Your task to perform on an android device: clear history in the chrome app Image 0: 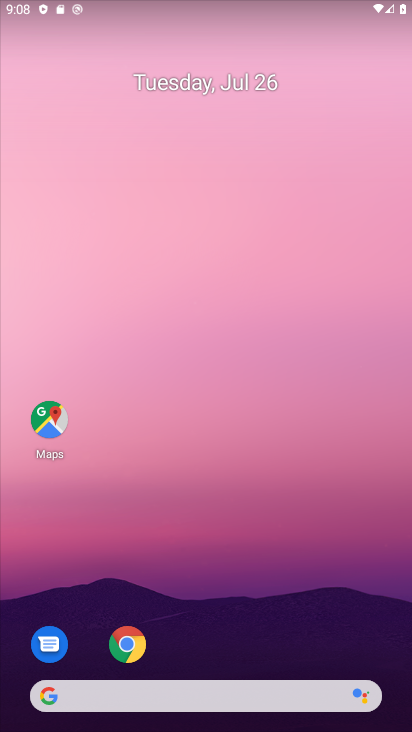
Step 0: click (122, 643)
Your task to perform on an android device: clear history in the chrome app Image 1: 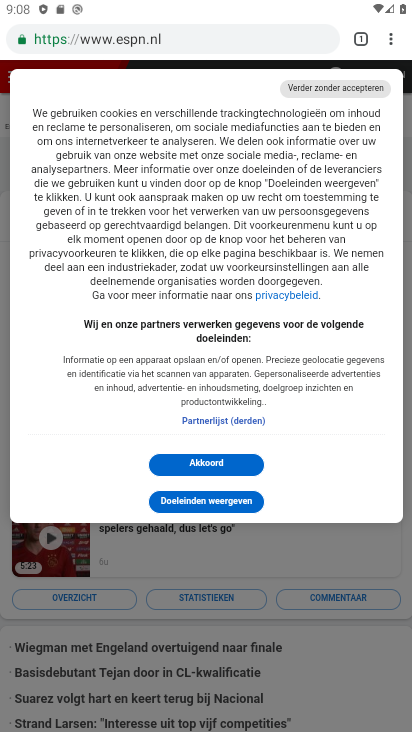
Step 1: click (397, 39)
Your task to perform on an android device: clear history in the chrome app Image 2: 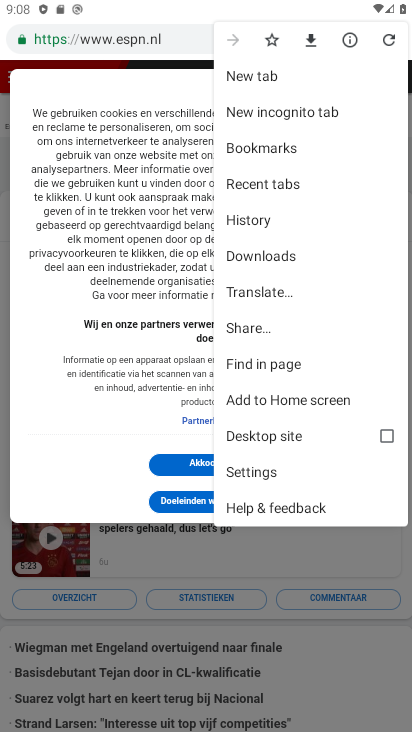
Step 2: click (262, 217)
Your task to perform on an android device: clear history in the chrome app Image 3: 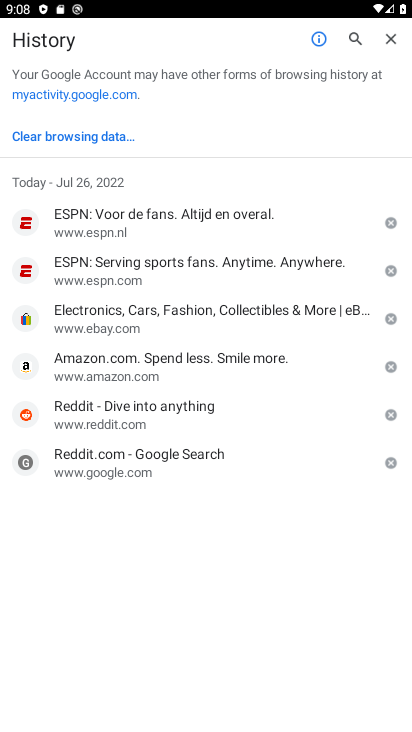
Step 3: click (89, 133)
Your task to perform on an android device: clear history in the chrome app Image 4: 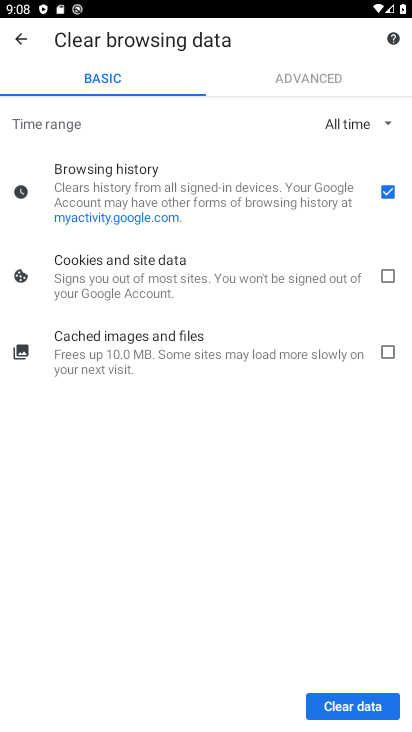
Step 4: click (386, 287)
Your task to perform on an android device: clear history in the chrome app Image 5: 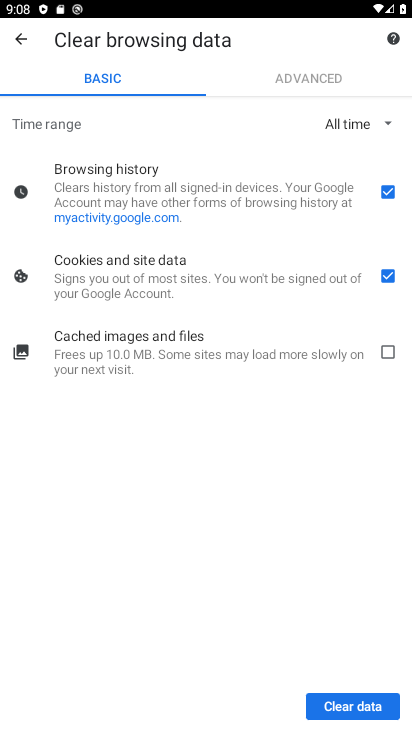
Step 5: click (388, 347)
Your task to perform on an android device: clear history in the chrome app Image 6: 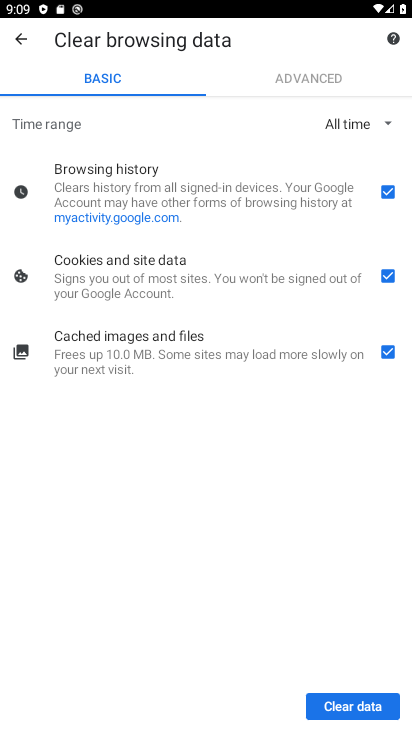
Step 6: click (372, 710)
Your task to perform on an android device: clear history in the chrome app Image 7: 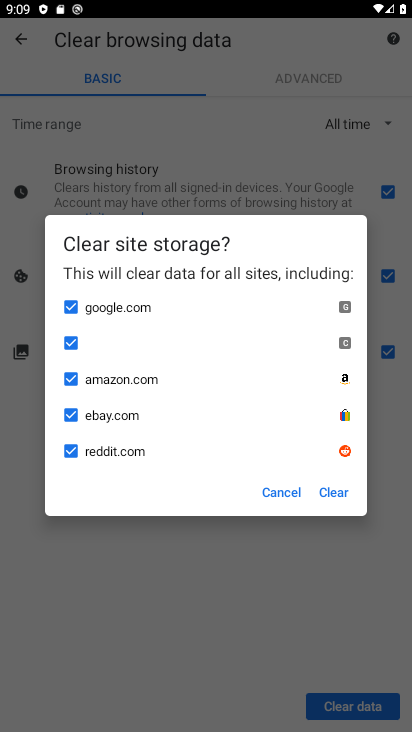
Step 7: click (335, 490)
Your task to perform on an android device: clear history in the chrome app Image 8: 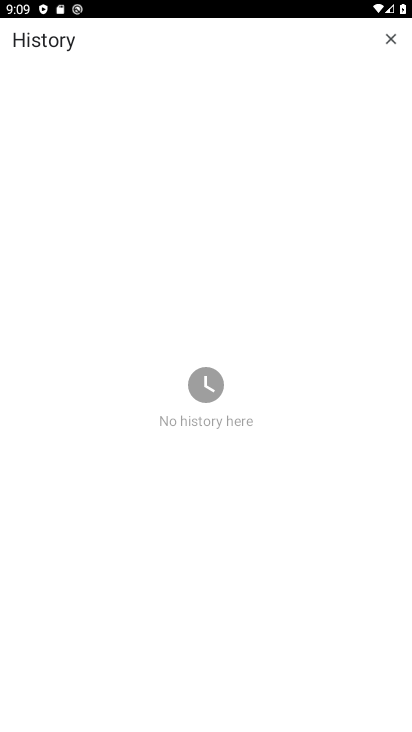
Step 8: task complete